Your task to perform on an android device: turn off location Image 0: 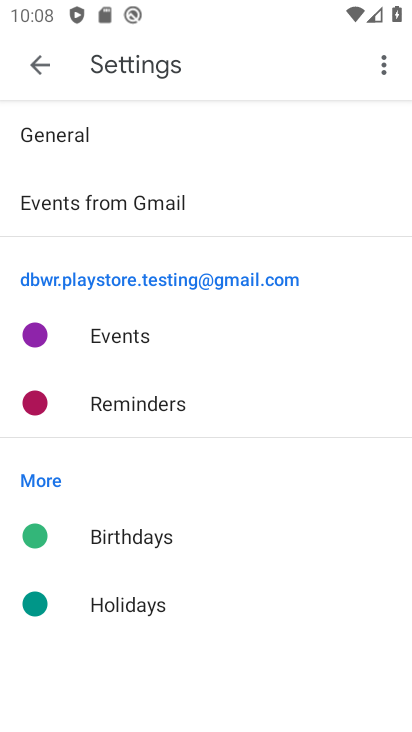
Step 0: click (34, 65)
Your task to perform on an android device: turn off location Image 1: 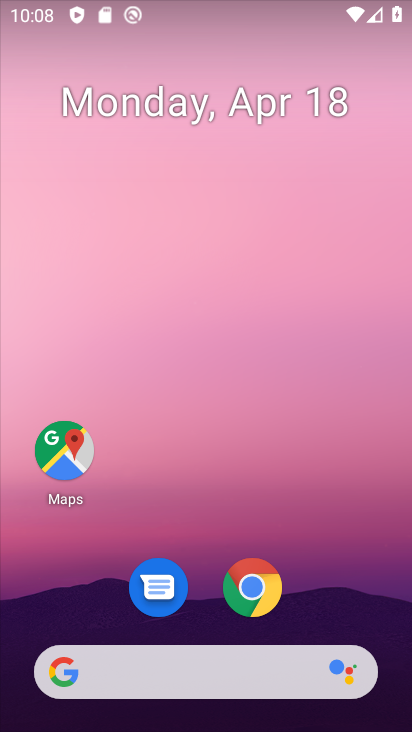
Step 1: drag from (373, 641) to (110, 106)
Your task to perform on an android device: turn off location Image 2: 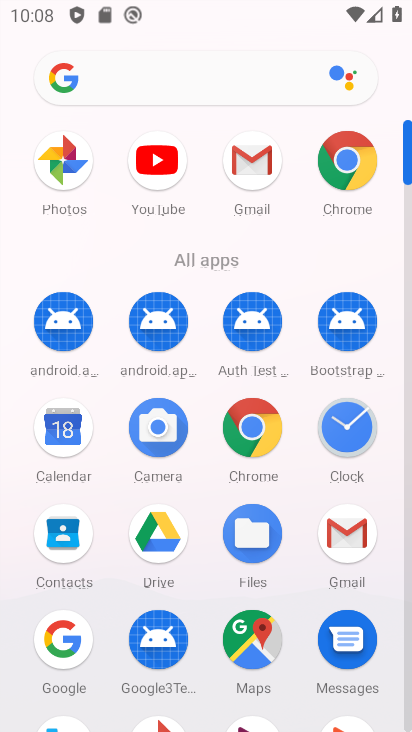
Step 2: click (401, 610)
Your task to perform on an android device: turn off location Image 3: 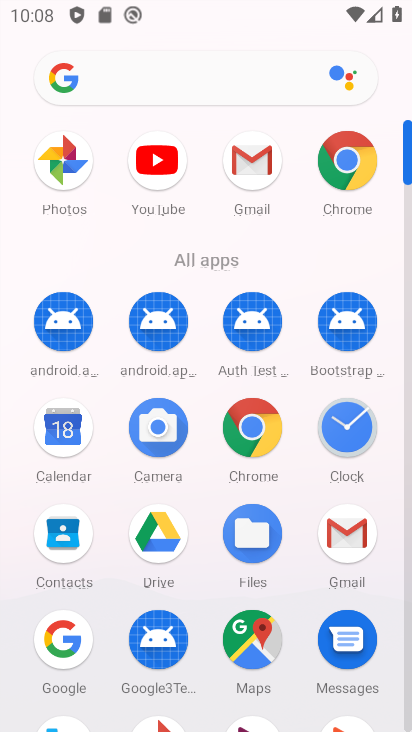
Step 3: click (401, 645)
Your task to perform on an android device: turn off location Image 4: 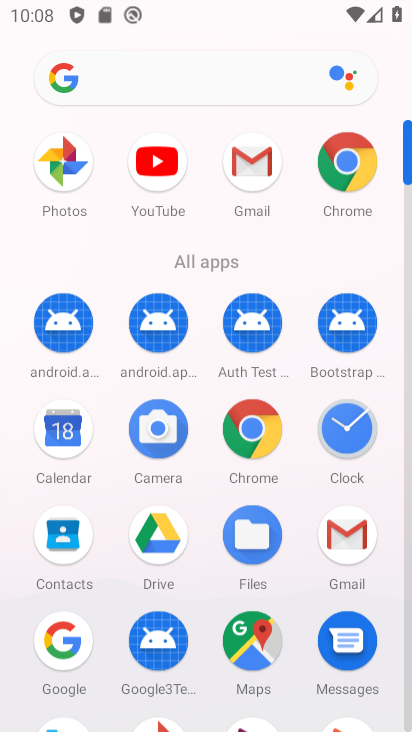
Step 4: drag from (389, 659) to (316, 226)
Your task to perform on an android device: turn off location Image 5: 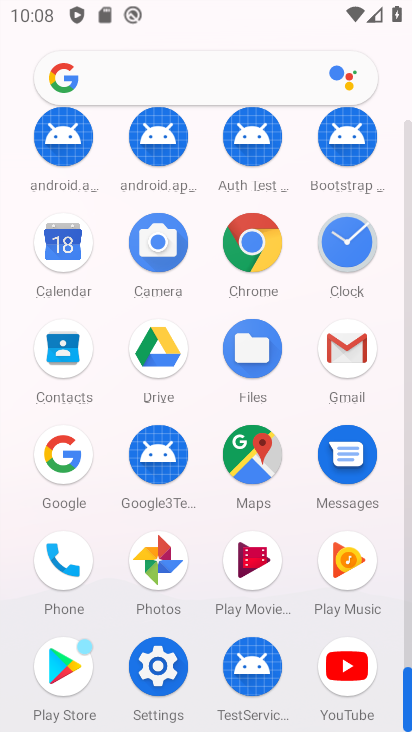
Step 5: drag from (400, 379) to (391, 179)
Your task to perform on an android device: turn off location Image 6: 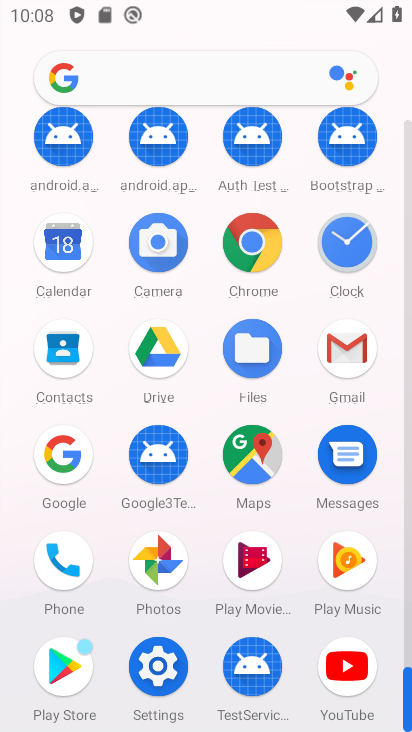
Step 6: click (157, 666)
Your task to perform on an android device: turn off location Image 7: 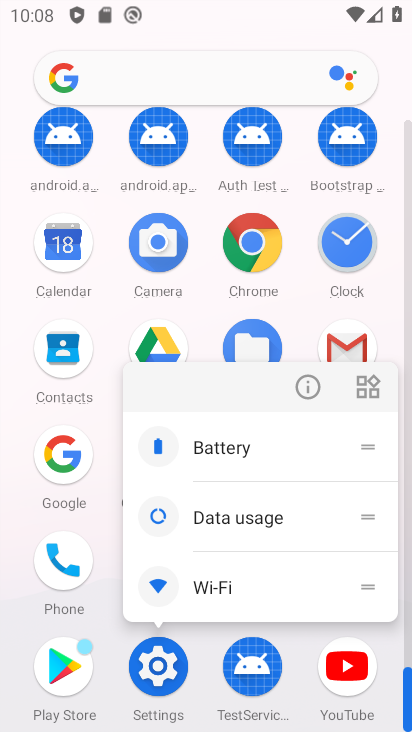
Step 7: click (159, 677)
Your task to perform on an android device: turn off location Image 8: 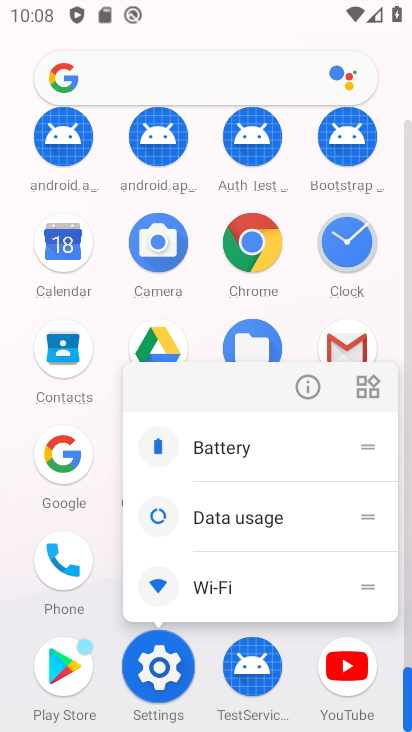
Step 8: click (160, 677)
Your task to perform on an android device: turn off location Image 9: 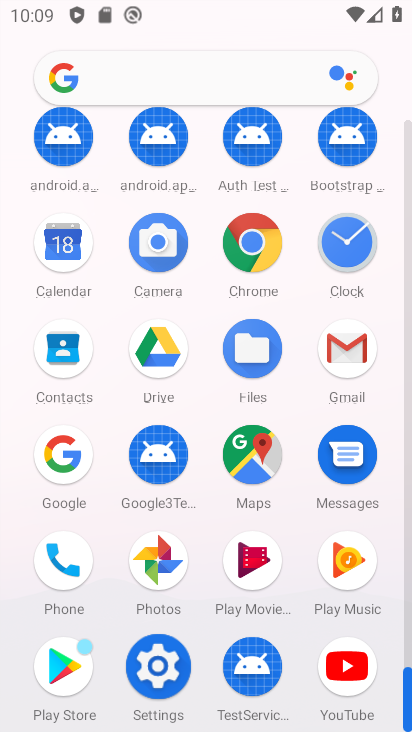
Step 9: click (167, 675)
Your task to perform on an android device: turn off location Image 10: 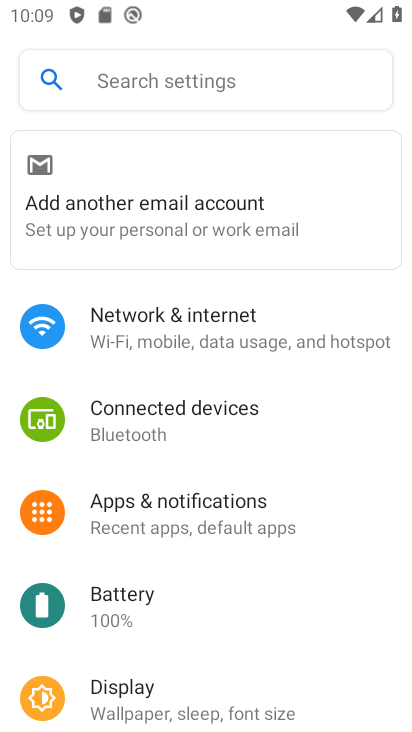
Step 10: drag from (244, 616) to (182, 204)
Your task to perform on an android device: turn off location Image 11: 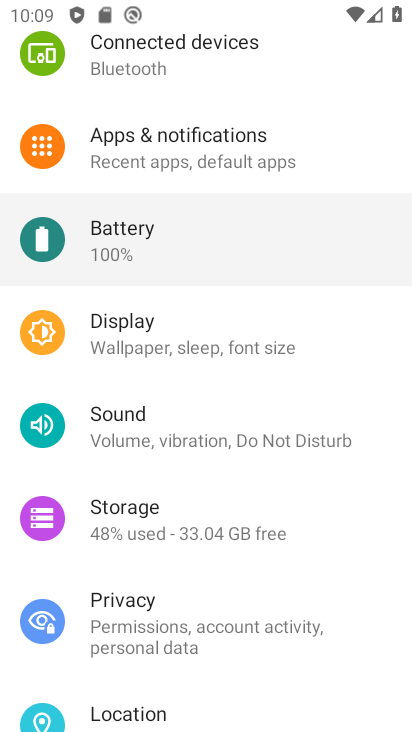
Step 11: drag from (282, 568) to (261, 311)
Your task to perform on an android device: turn off location Image 12: 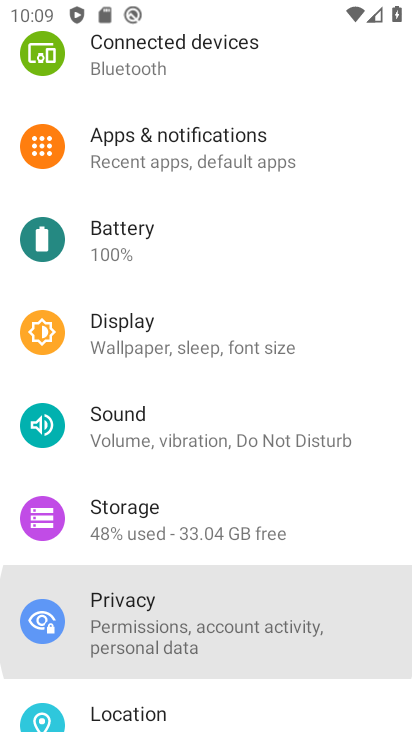
Step 12: drag from (234, 424) to (230, 278)
Your task to perform on an android device: turn off location Image 13: 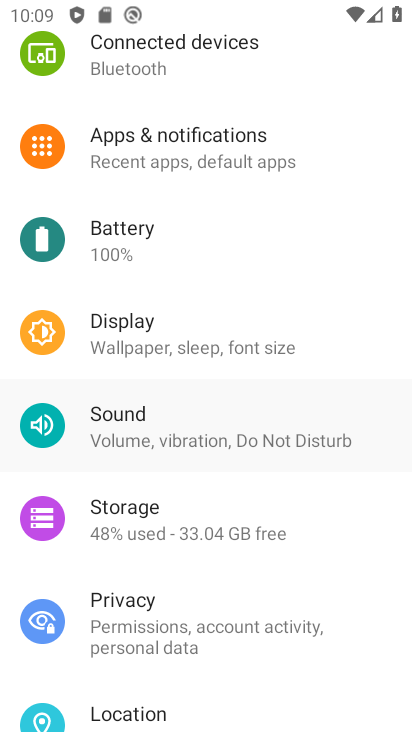
Step 13: drag from (262, 501) to (276, 168)
Your task to perform on an android device: turn off location Image 14: 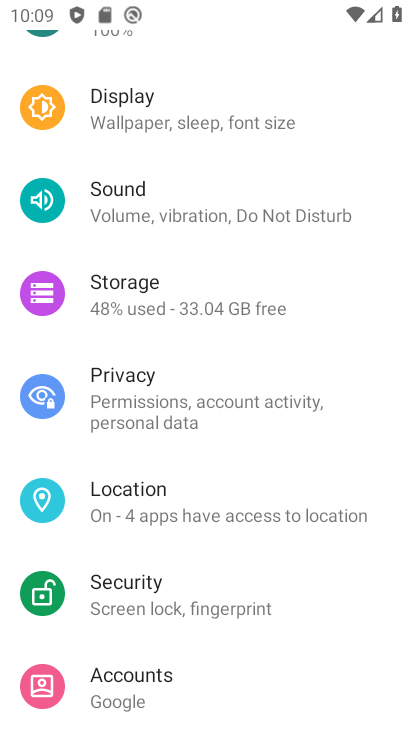
Step 14: drag from (234, 565) to (203, 299)
Your task to perform on an android device: turn off location Image 15: 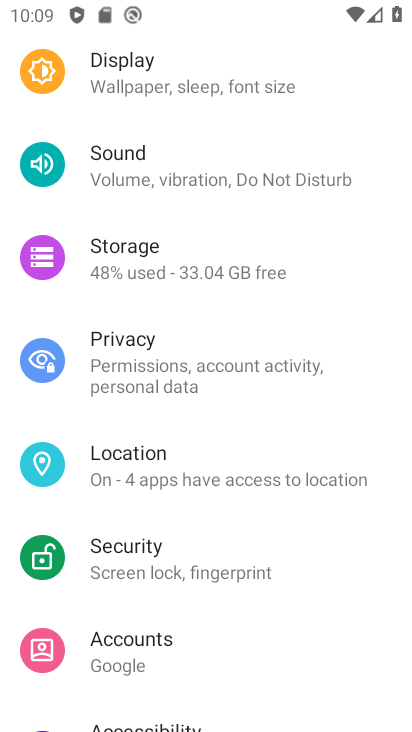
Step 15: click (132, 509)
Your task to perform on an android device: turn off location Image 16: 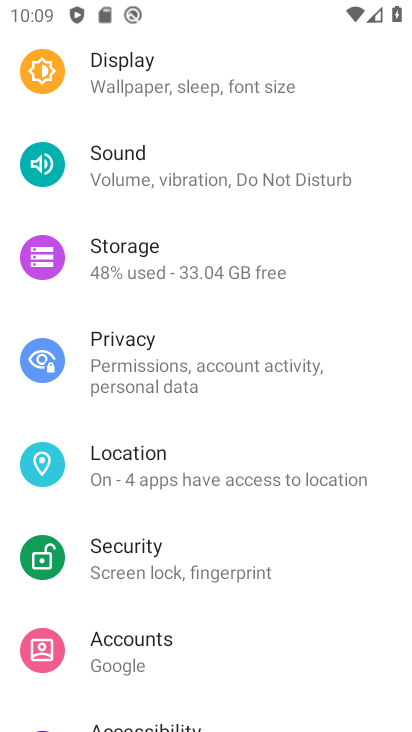
Step 16: click (151, 501)
Your task to perform on an android device: turn off location Image 17: 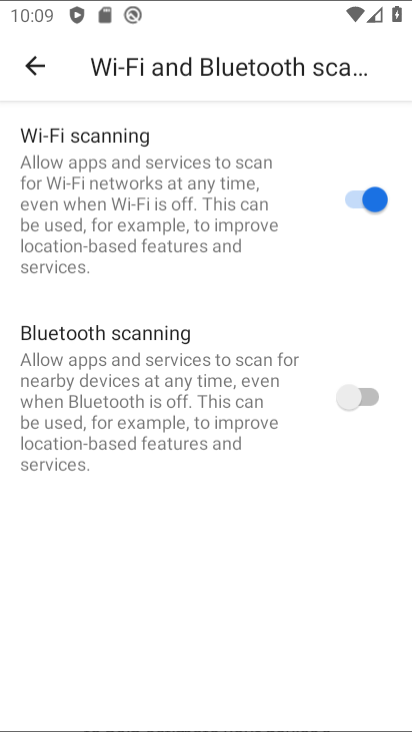
Step 17: click (374, 137)
Your task to perform on an android device: turn off location Image 18: 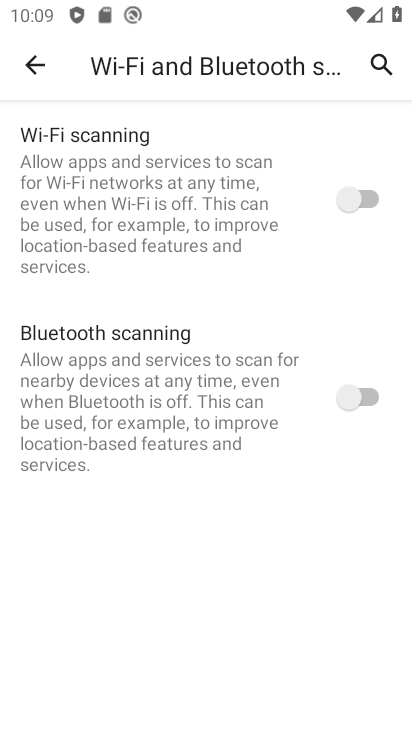
Step 18: click (346, 195)
Your task to perform on an android device: turn off location Image 19: 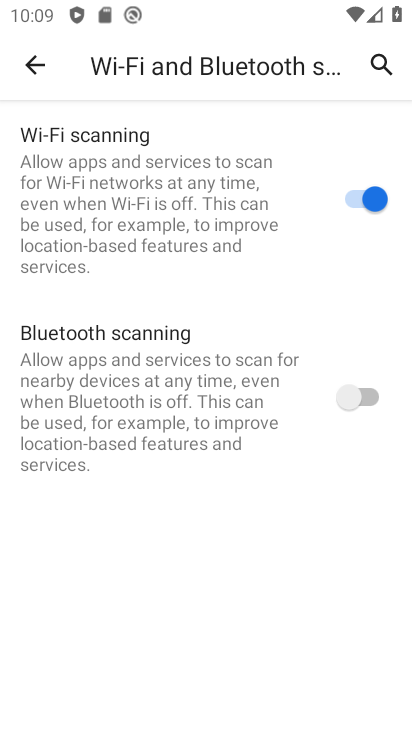
Step 19: click (34, 66)
Your task to perform on an android device: turn off location Image 20: 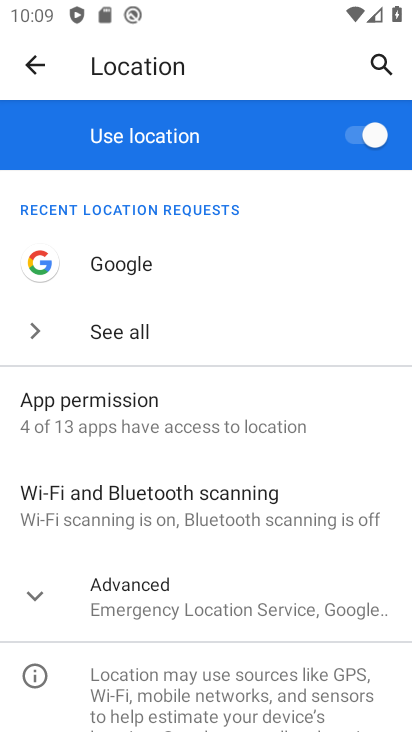
Step 20: click (364, 138)
Your task to perform on an android device: turn off location Image 21: 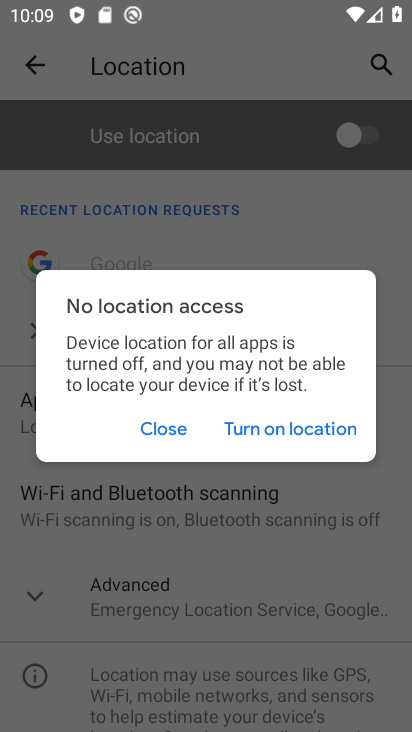
Step 21: click (165, 426)
Your task to perform on an android device: turn off location Image 22: 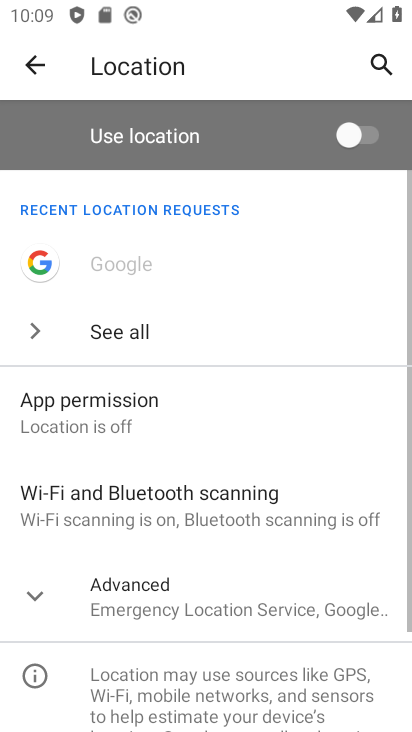
Step 22: task complete